Your task to perform on an android device: turn on the 24-hour format for clock Image 0: 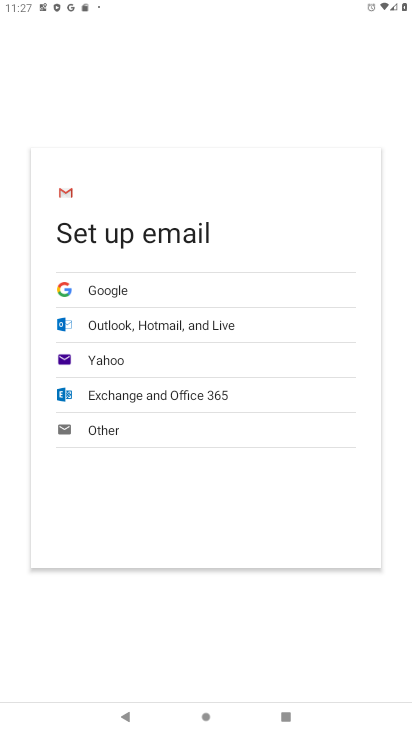
Step 0: press home button
Your task to perform on an android device: turn on the 24-hour format for clock Image 1: 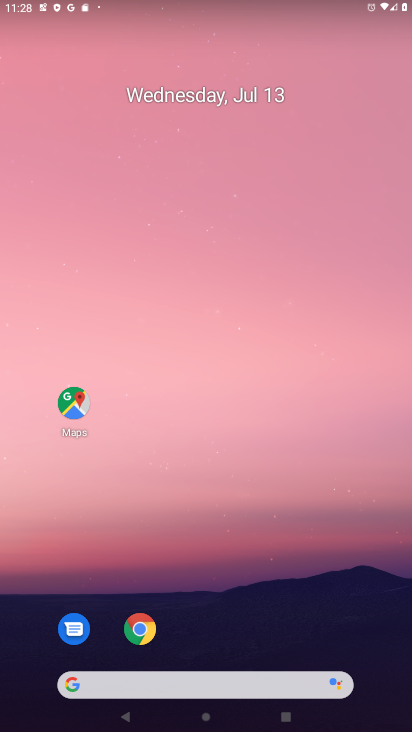
Step 1: drag from (236, 628) to (236, 258)
Your task to perform on an android device: turn on the 24-hour format for clock Image 2: 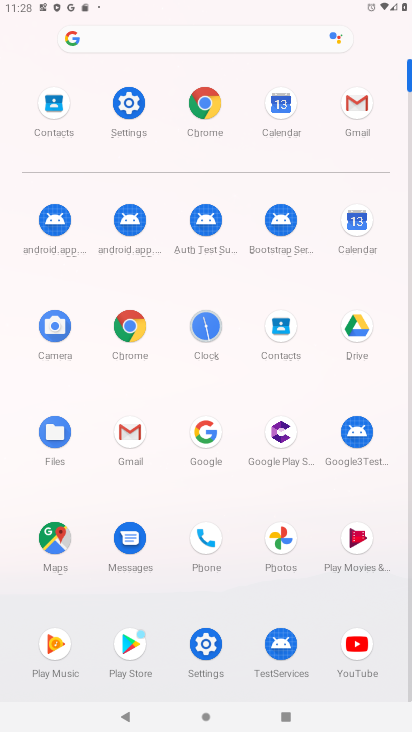
Step 2: click (210, 318)
Your task to perform on an android device: turn on the 24-hour format for clock Image 3: 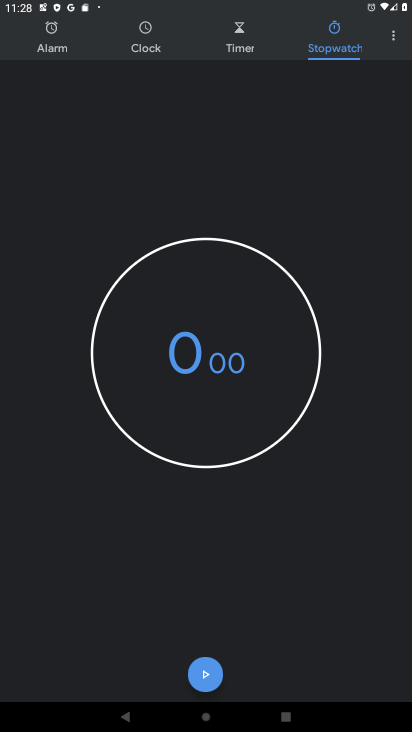
Step 3: click (393, 42)
Your task to perform on an android device: turn on the 24-hour format for clock Image 4: 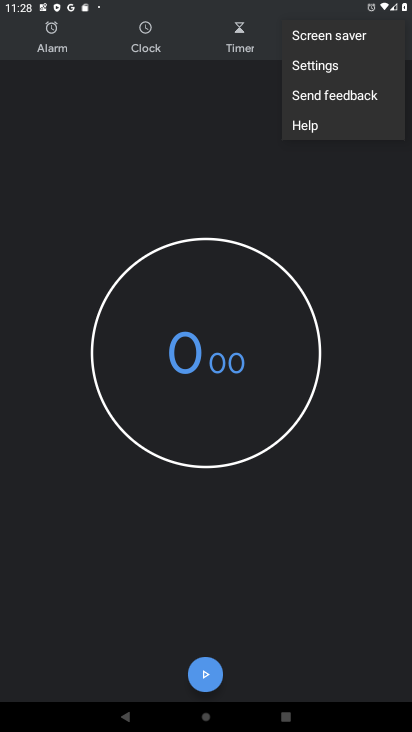
Step 4: click (326, 76)
Your task to perform on an android device: turn on the 24-hour format for clock Image 5: 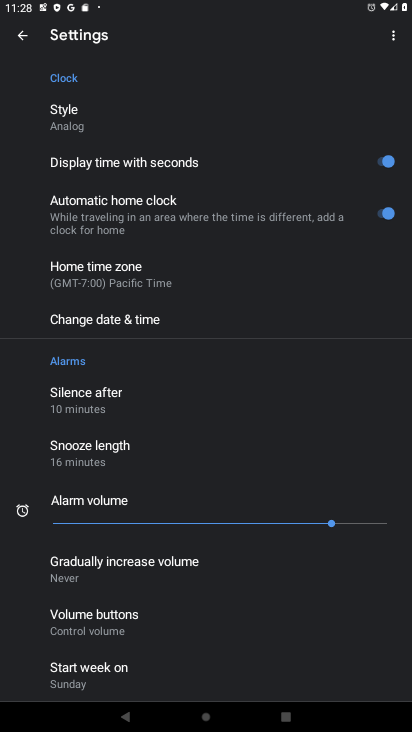
Step 5: click (200, 330)
Your task to perform on an android device: turn on the 24-hour format for clock Image 6: 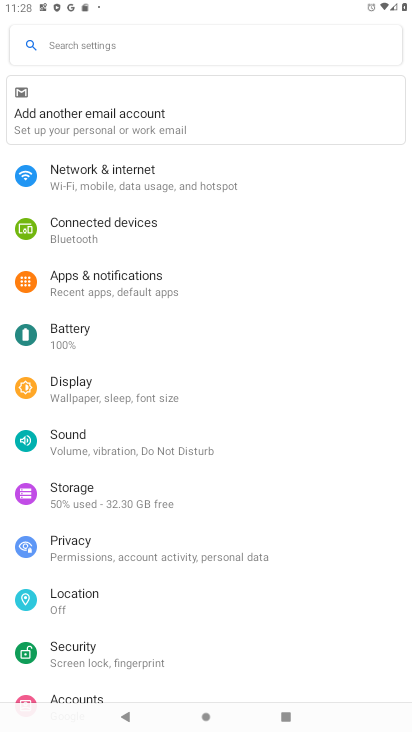
Step 6: task complete